Your task to perform on an android device: Open accessibility settings Image 0: 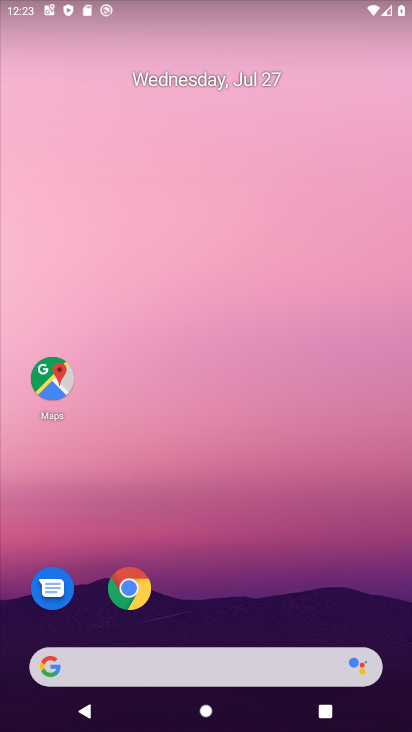
Step 0: drag from (23, 705) to (136, 106)
Your task to perform on an android device: Open accessibility settings Image 1: 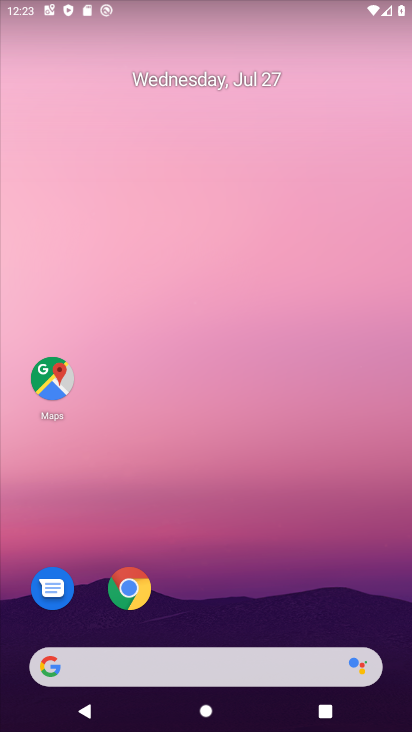
Step 1: drag from (61, 639) to (206, 36)
Your task to perform on an android device: Open accessibility settings Image 2: 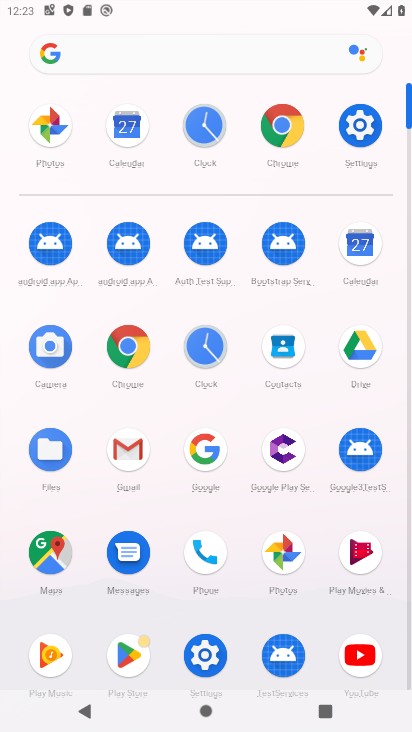
Step 2: click (193, 642)
Your task to perform on an android device: Open accessibility settings Image 3: 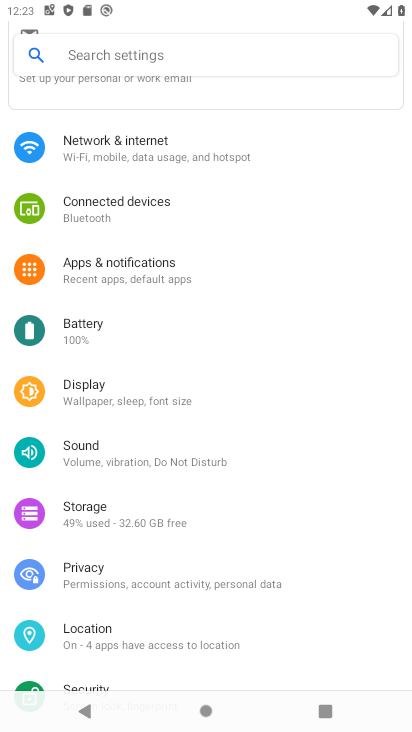
Step 3: drag from (307, 634) to (308, 277)
Your task to perform on an android device: Open accessibility settings Image 4: 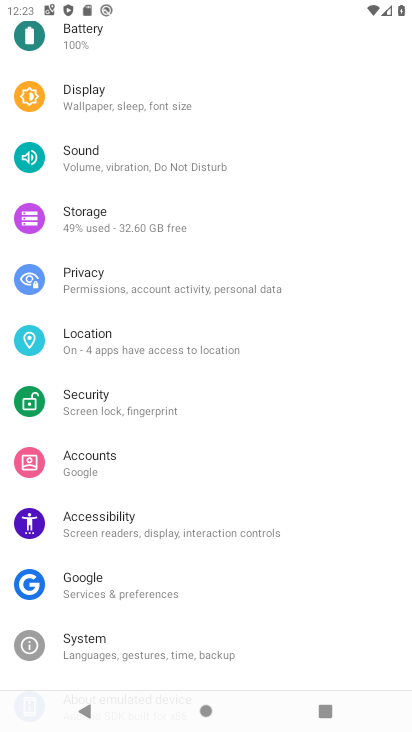
Step 4: click (107, 515)
Your task to perform on an android device: Open accessibility settings Image 5: 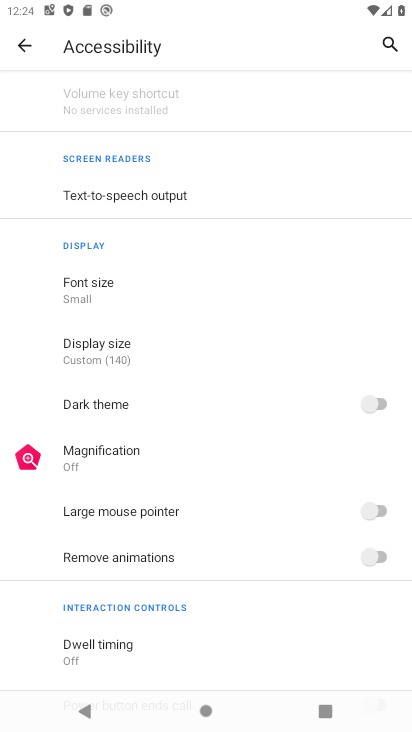
Step 5: task complete